Your task to perform on an android device: set an alarm Image 0: 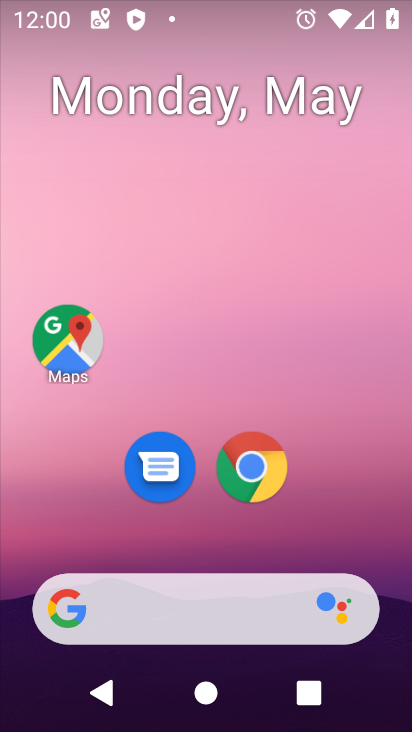
Step 0: drag from (399, 604) to (268, 18)
Your task to perform on an android device: set an alarm Image 1: 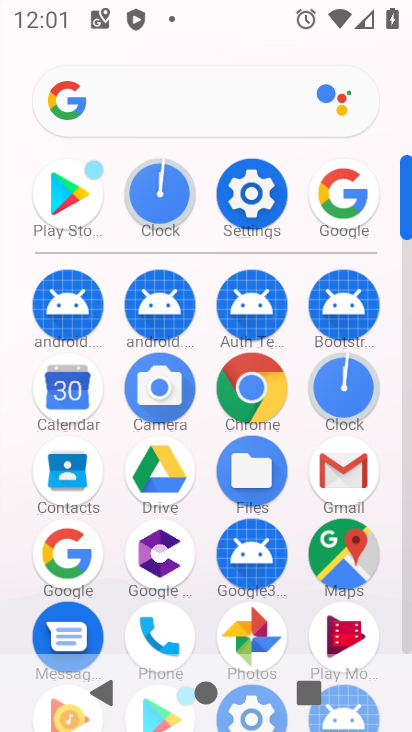
Step 1: click (363, 403)
Your task to perform on an android device: set an alarm Image 2: 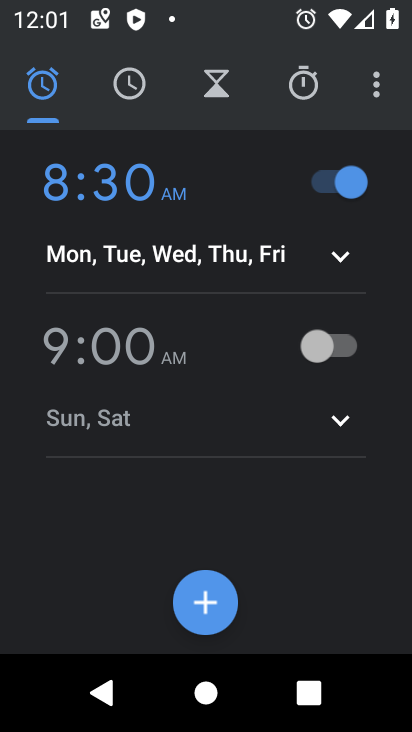
Step 2: click (349, 356)
Your task to perform on an android device: set an alarm Image 3: 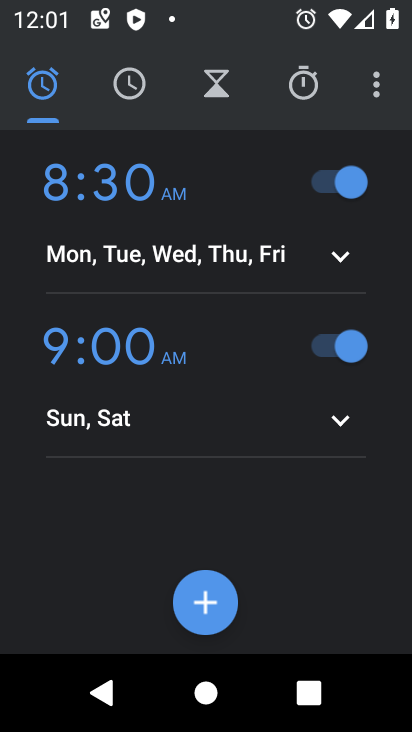
Step 3: task complete